Your task to perform on an android device: Open the stopwatch Image 0: 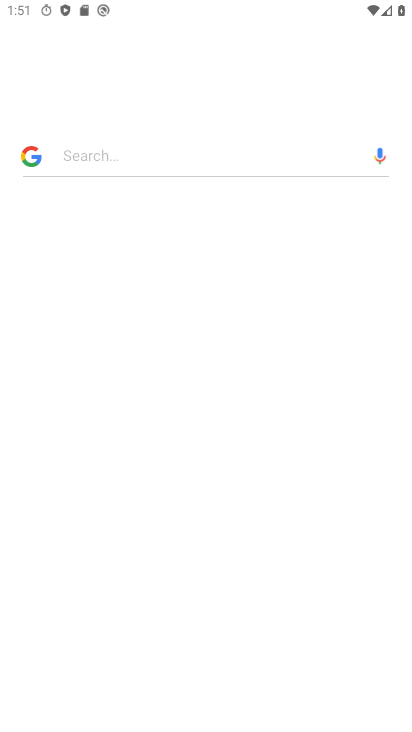
Step 0: drag from (242, 598) to (202, 267)
Your task to perform on an android device: Open the stopwatch Image 1: 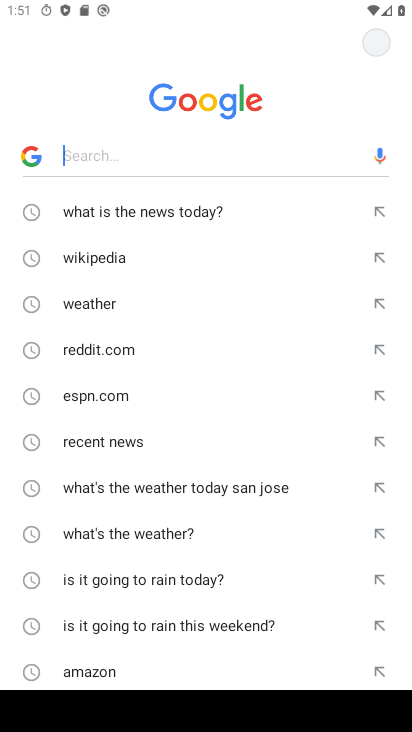
Step 1: press back button
Your task to perform on an android device: Open the stopwatch Image 2: 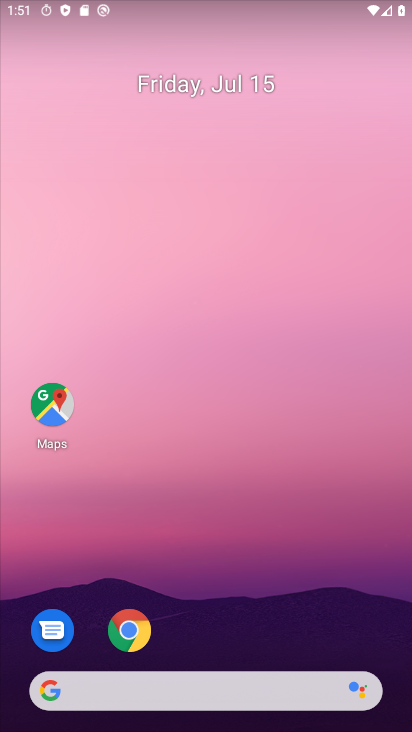
Step 2: drag from (195, 621) to (195, 206)
Your task to perform on an android device: Open the stopwatch Image 3: 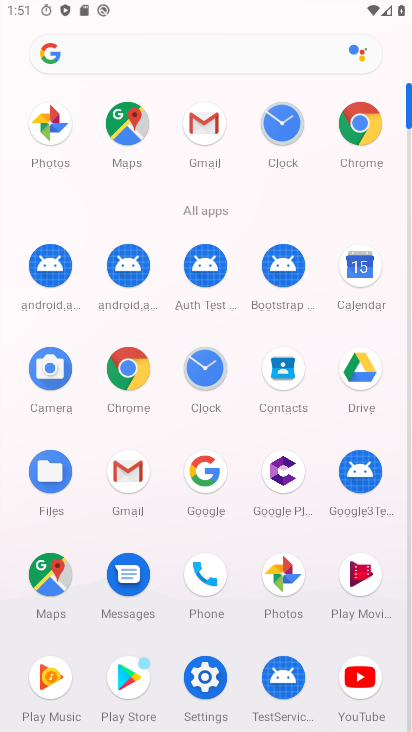
Step 3: click (278, 108)
Your task to perform on an android device: Open the stopwatch Image 4: 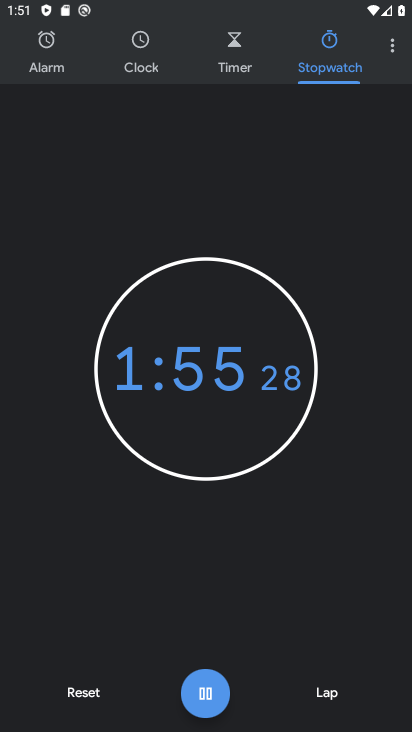
Step 4: task complete